Your task to perform on an android device: Open the web browser Image 0: 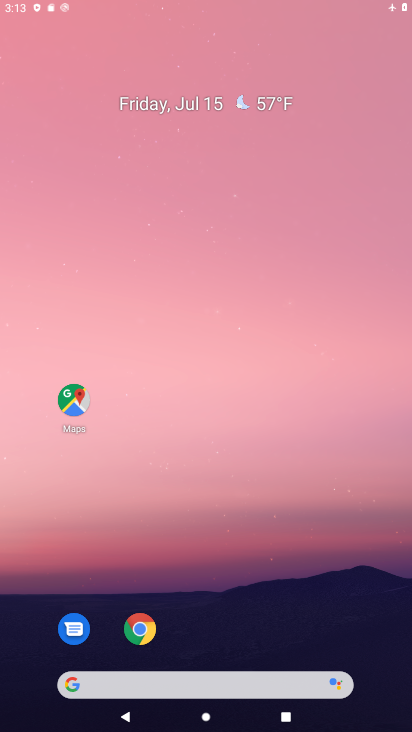
Step 0: click (123, 497)
Your task to perform on an android device: Open the web browser Image 1: 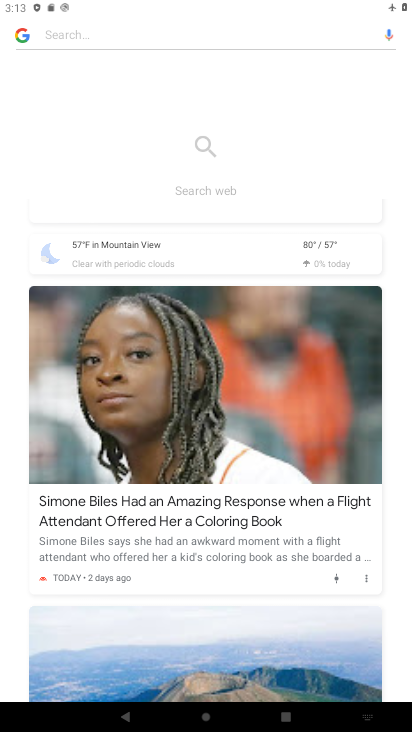
Step 1: press home button
Your task to perform on an android device: Open the web browser Image 2: 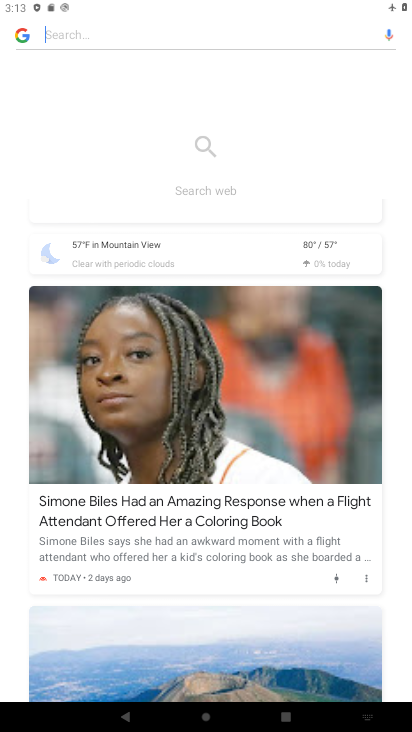
Step 2: press home button
Your task to perform on an android device: Open the web browser Image 3: 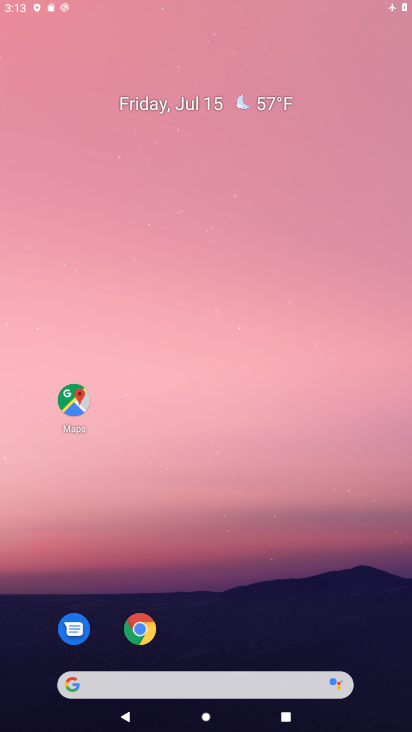
Step 3: press home button
Your task to perform on an android device: Open the web browser Image 4: 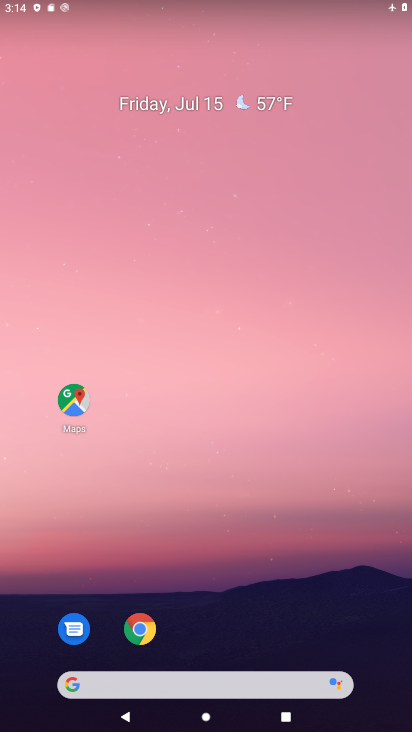
Step 4: drag from (242, 619) to (250, 278)
Your task to perform on an android device: Open the web browser Image 5: 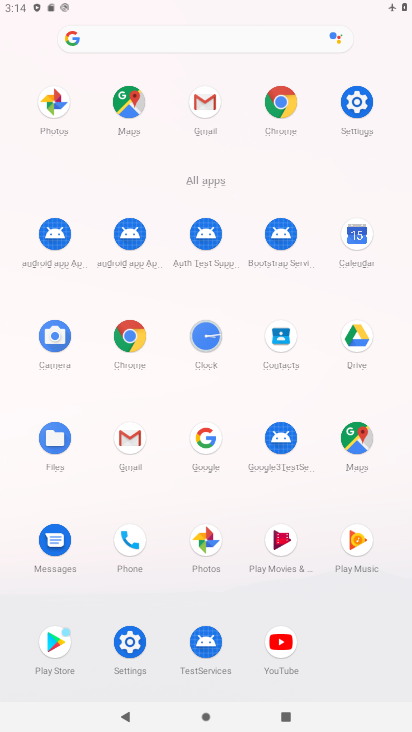
Step 5: click (268, 98)
Your task to perform on an android device: Open the web browser Image 6: 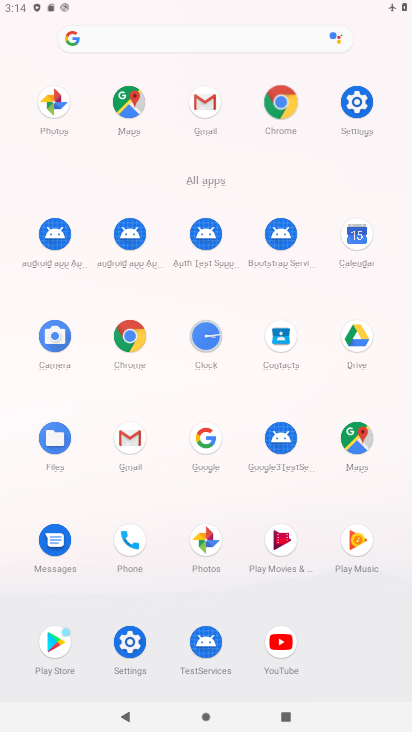
Step 6: click (266, 95)
Your task to perform on an android device: Open the web browser Image 7: 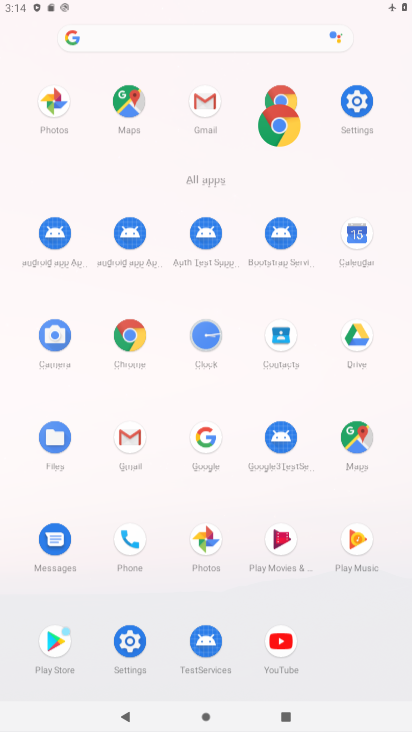
Step 7: click (265, 95)
Your task to perform on an android device: Open the web browser Image 8: 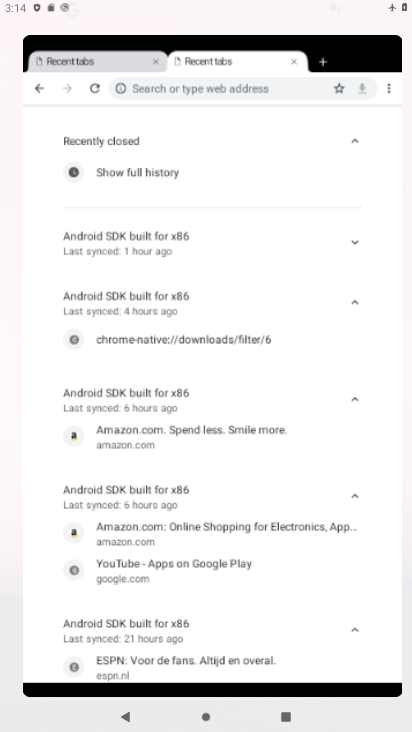
Step 8: click (265, 95)
Your task to perform on an android device: Open the web browser Image 9: 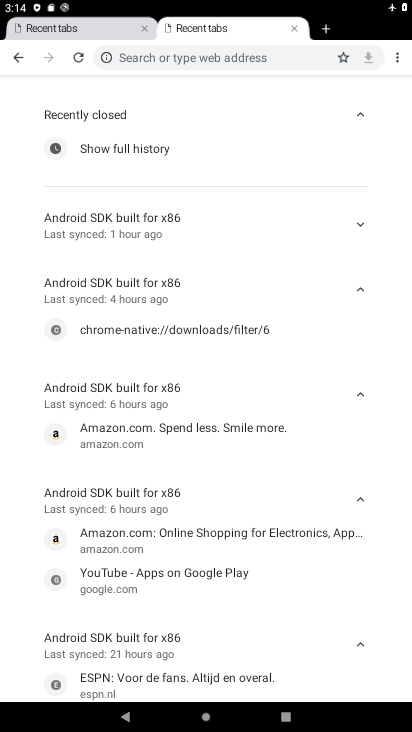
Step 9: drag from (396, 57) to (382, 171)
Your task to perform on an android device: Open the web browser Image 10: 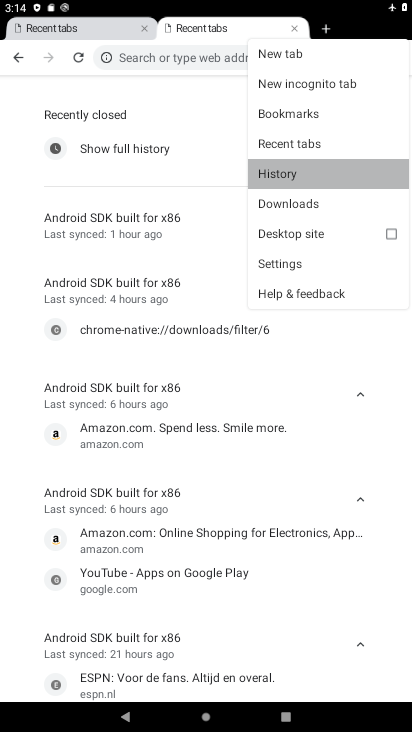
Step 10: click (370, 147)
Your task to perform on an android device: Open the web browser Image 11: 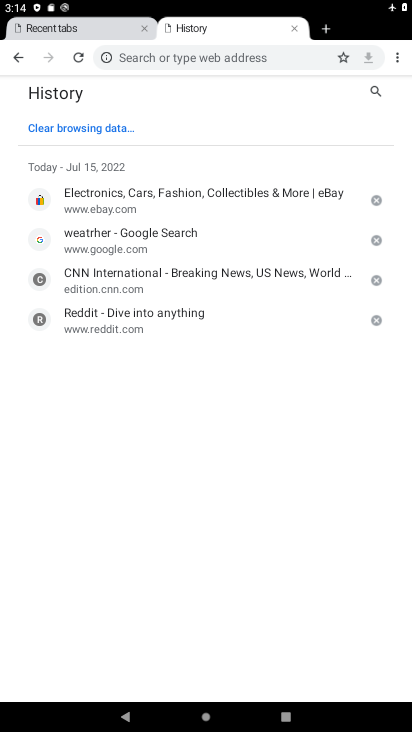
Step 11: drag from (393, 61) to (281, 54)
Your task to perform on an android device: Open the web browser Image 12: 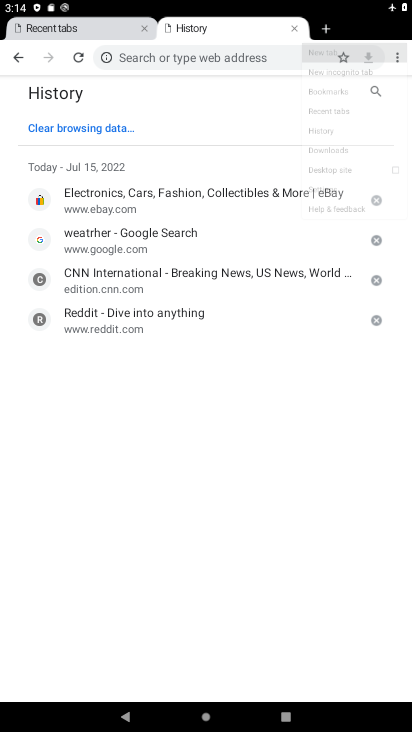
Step 12: click (281, 54)
Your task to perform on an android device: Open the web browser Image 13: 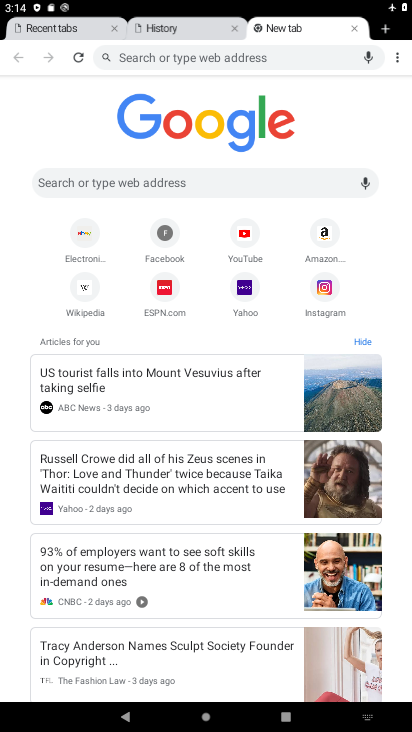
Step 13: task complete